Your task to perform on an android device: Open calendar and show me the second week of next month Image 0: 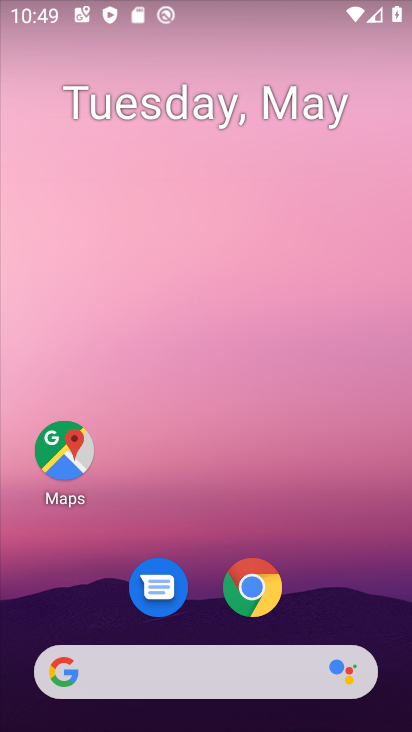
Step 0: drag from (299, 579) to (236, 20)
Your task to perform on an android device: Open calendar and show me the second week of next month Image 1: 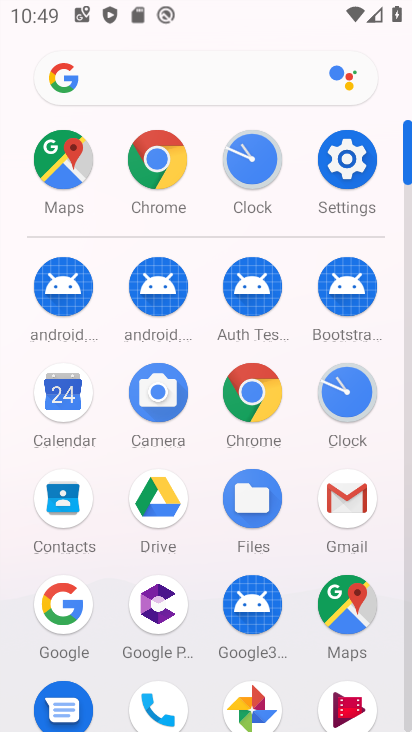
Step 1: drag from (9, 547) to (20, 227)
Your task to perform on an android device: Open calendar and show me the second week of next month Image 2: 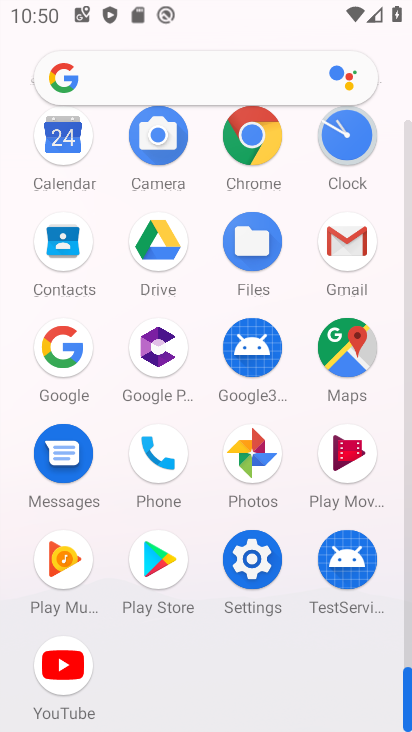
Step 2: click (69, 142)
Your task to perform on an android device: Open calendar and show me the second week of next month Image 3: 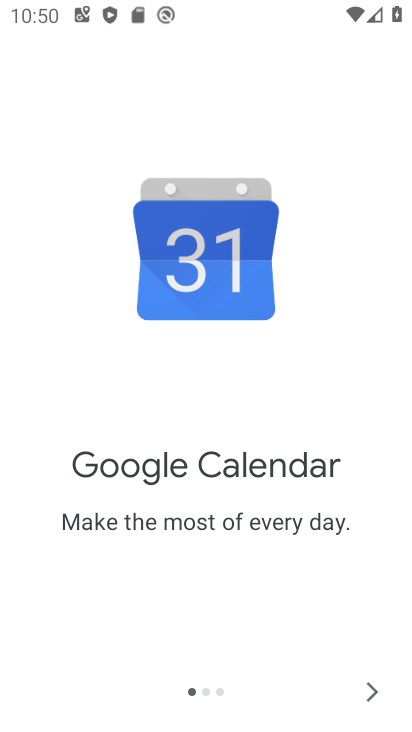
Step 3: click (374, 688)
Your task to perform on an android device: Open calendar and show me the second week of next month Image 4: 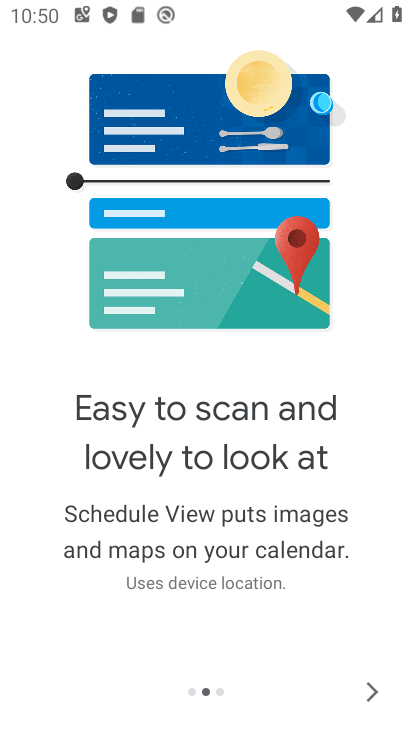
Step 4: click (374, 687)
Your task to perform on an android device: Open calendar and show me the second week of next month Image 5: 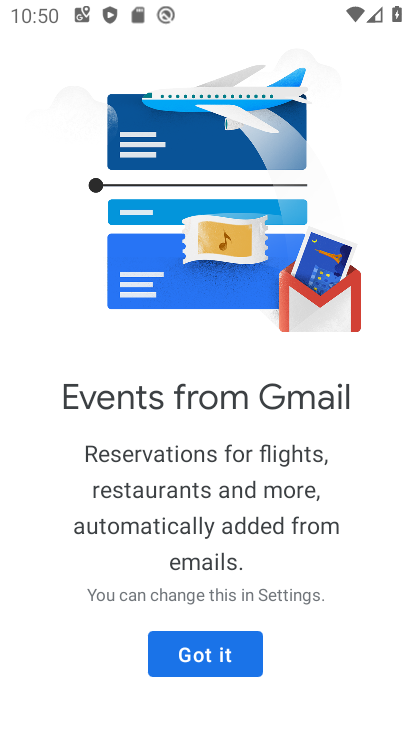
Step 5: click (225, 652)
Your task to perform on an android device: Open calendar and show me the second week of next month Image 6: 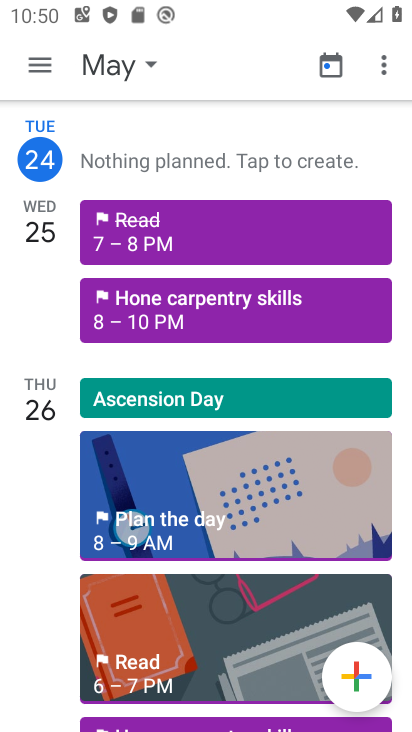
Step 6: click (121, 64)
Your task to perform on an android device: Open calendar and show me the second week of next month Image 7: 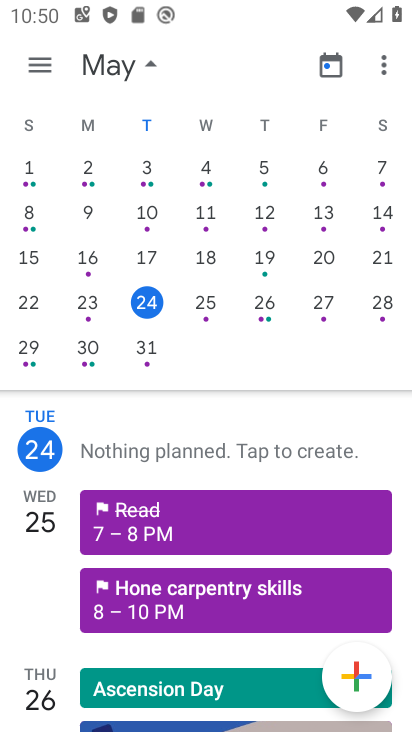
Step 7: drag from (387, 227) to (34, 237)
Your task to perform on an android device: Open calendar and show me the second week of next month Image 8: 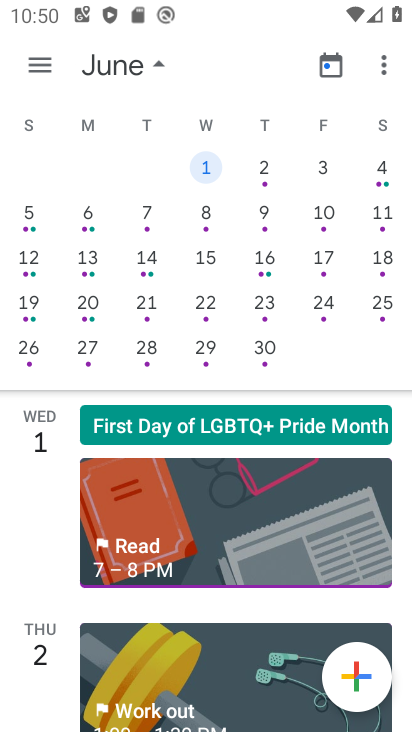
Step 8: click (19, 212)
Your task to perform on an android device: Open calendar and show me the second week of next month Image 9: 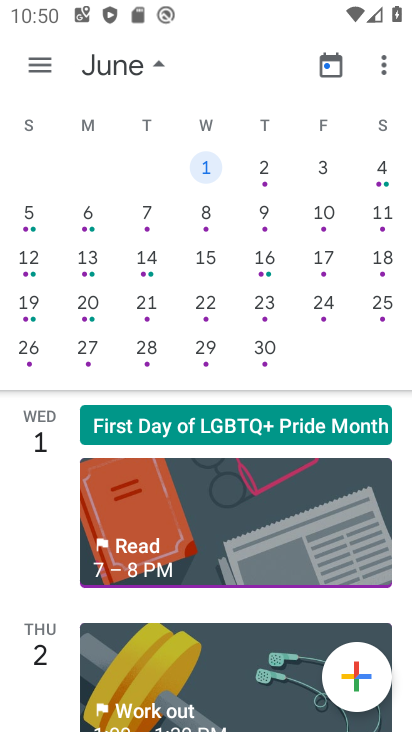
Step 9: click (31, 214)
Your task to perform on an android device: Open calendar and show me the second week of next month Image 10: 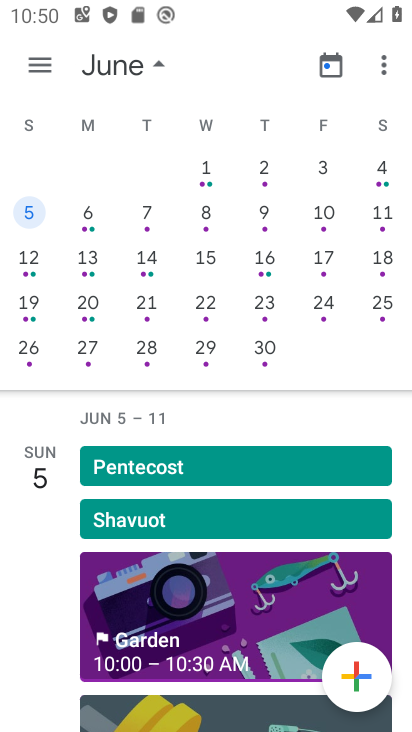
Step 10: click (50, 56)
Your task to perform on an android device: Open calendar and show me the second week of next month Image 11: 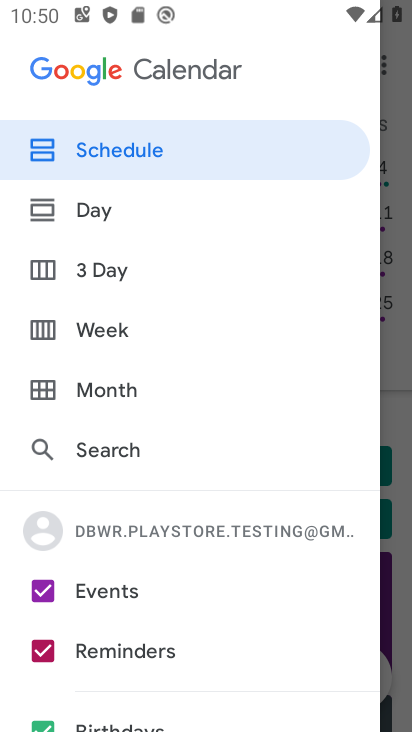
Step 11: click (106, 323)
Your task to perform on an android device: Open calendar and show me the second week of next month Image 12: 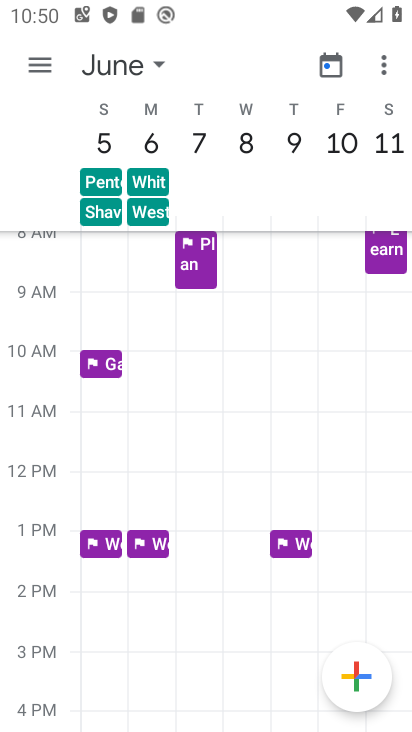
Step 12: task complete